Your task to perform on an android device: Show me popular games on the Play Store Image 0: 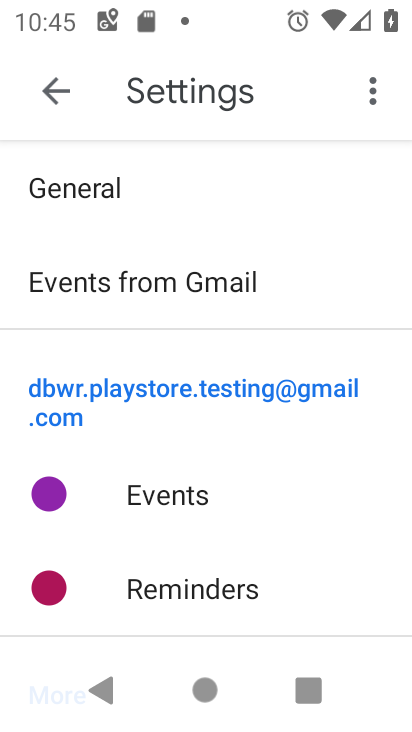
Step 0: press home button
Your task to perform on an android device: Show me popular games on the Play Store Image 1: 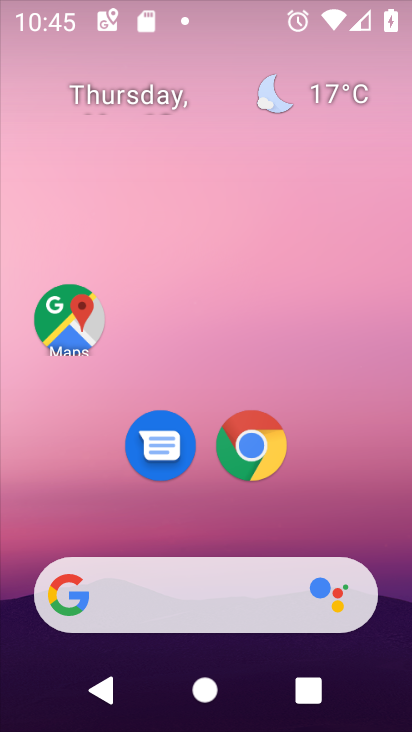
Step 1: drag from (338, 537) to (305, 228)
Your task to perform on an android device: Show me popular games on the Play Store Image 2: 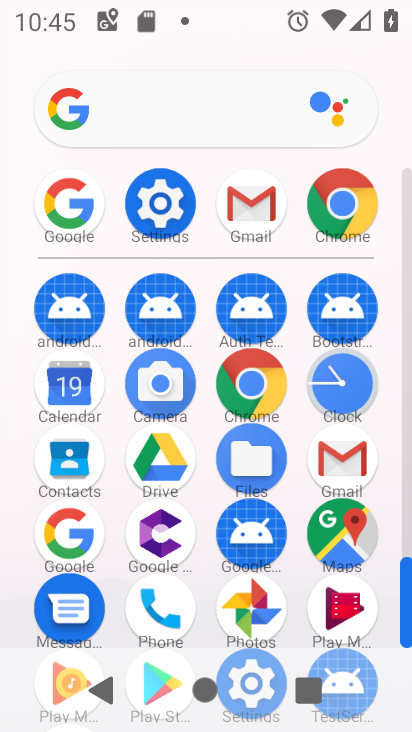
Step 2: drag from (120, 272) to (136, 59)
Your task to perform on an android device: Show me popular games on the Play Store Image 3: 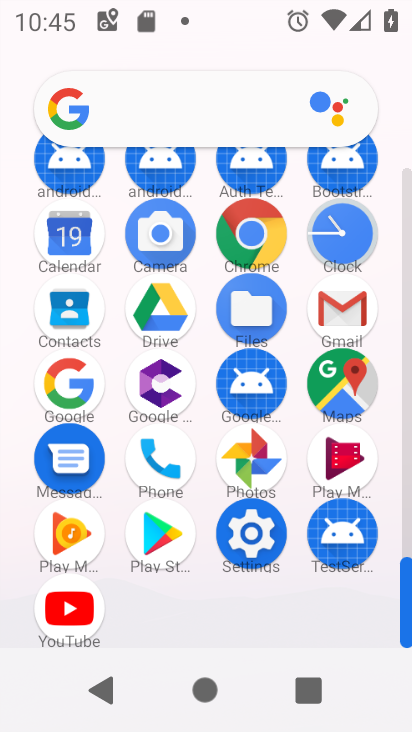
Step 3: click (164, 551)
Your task to perform on an android device: Show me popular games on the Play Store Image 4: 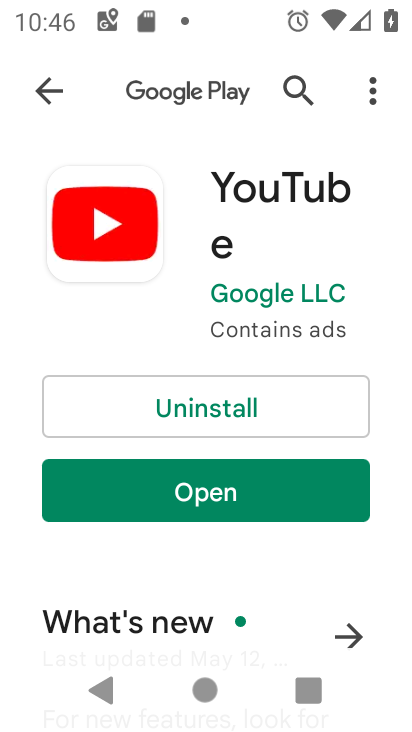
Step 4: click (240, 507)
Your task to perform on an android device: Show me popular games on the Play Store Image 5: 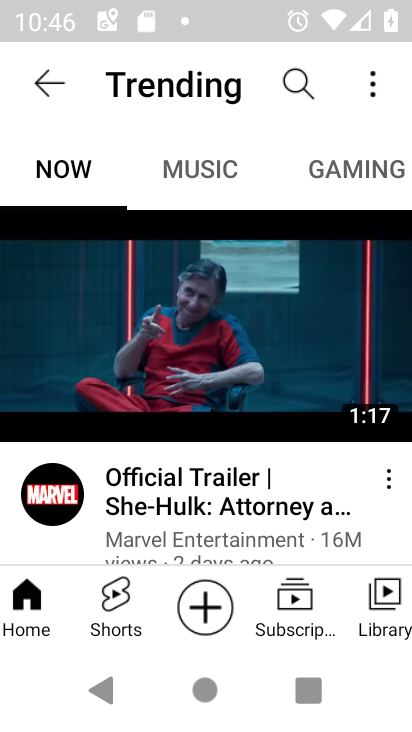
Step 5: task complete